Your task to perform on an android device: delete the emails in spam in the gmail app Image 0: 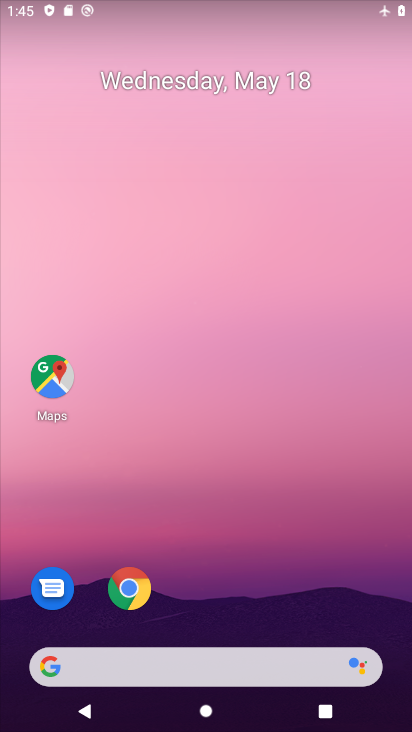
Step 0: drag from (332, 4) to (309, 543)
Your task to perform on an android device: delete the emails in spam in the gmail app Image 1: 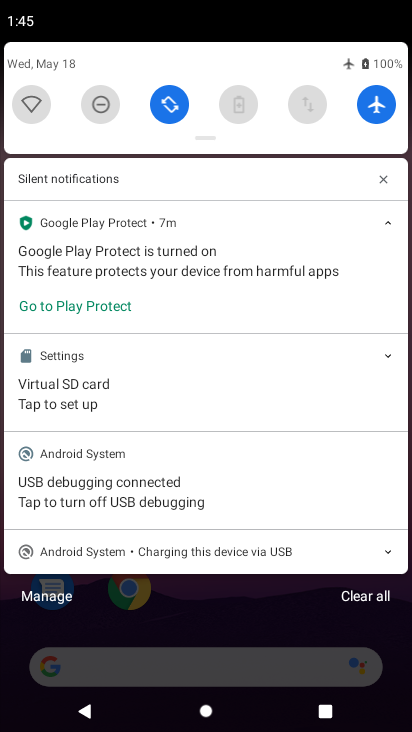
Step 1: click (371, 109)
Your task to perform on an android device: delete the emails in spam in the gmail app Image 2: 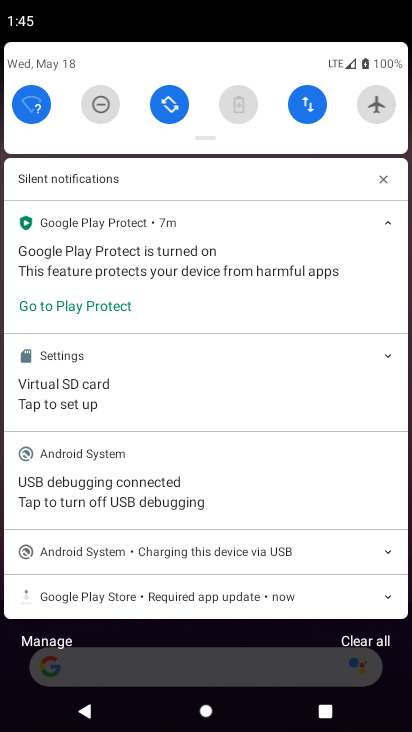
Step 2: press home button
Your task to perform on an android device: delete the emails in spam in the gmail app Image 3: 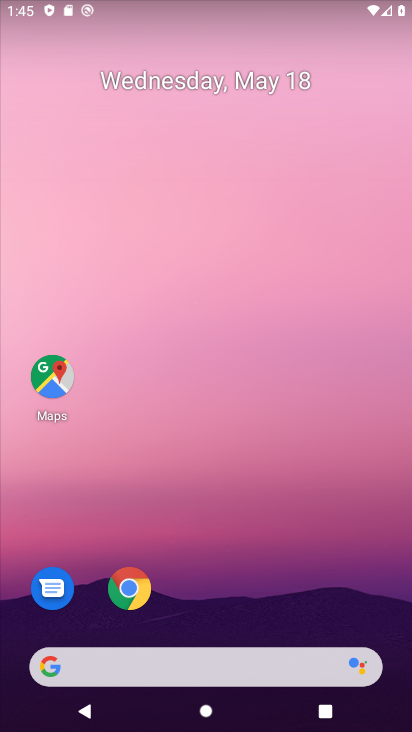
Step 3: drag from (67, 478) to (226, 163)
Your task to perform on an android device: delete the emails in spam in the gmail app Image 4: 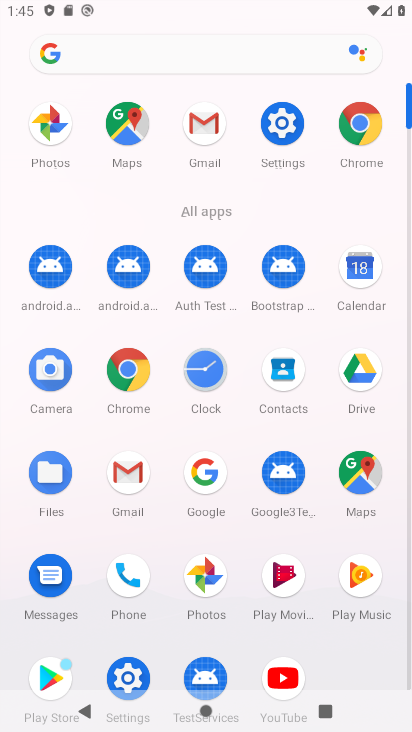
Step 4: click (127, 471)
Your task to perform on an android device: delete the emails in spam in the gmail app Image 5: 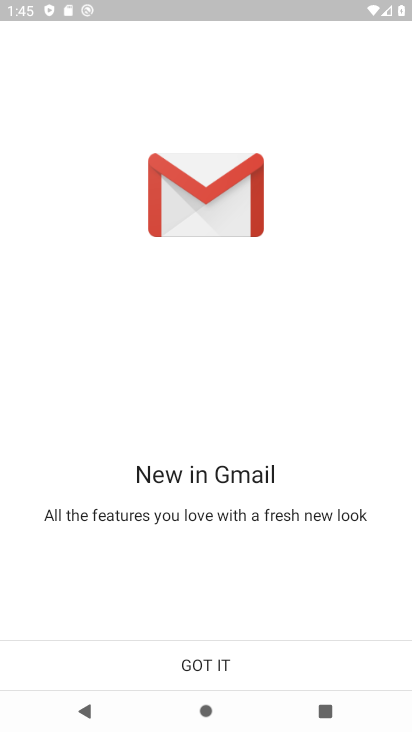
Step 5: click (174, 663)
Your task to perform on an android device: delete the emails in spam in the gmail app Image 6: 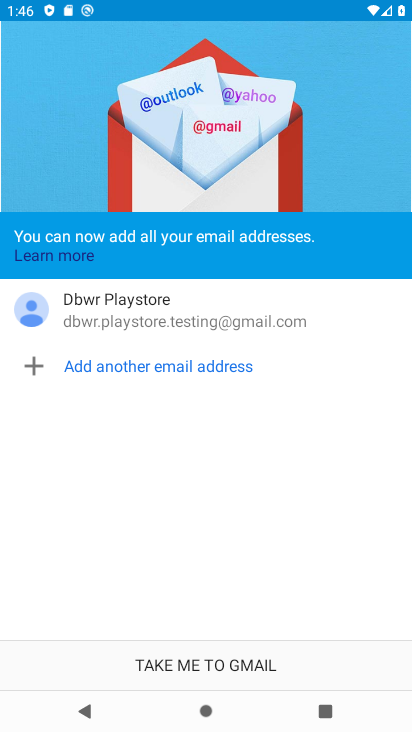
Step 6: click (154, 673)
Your task to perform on an android device: delete the emails in spam in the gmail app Image 7: 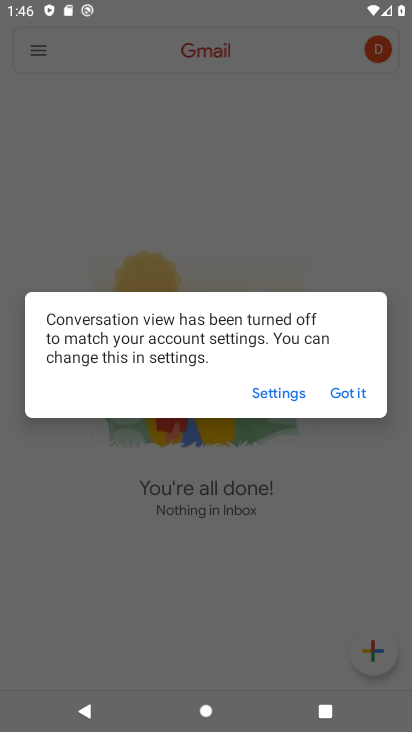
Step 7: click (346, 393)
Your task to perform on an android device: delete the emails in spam in the gmail app Image 8: 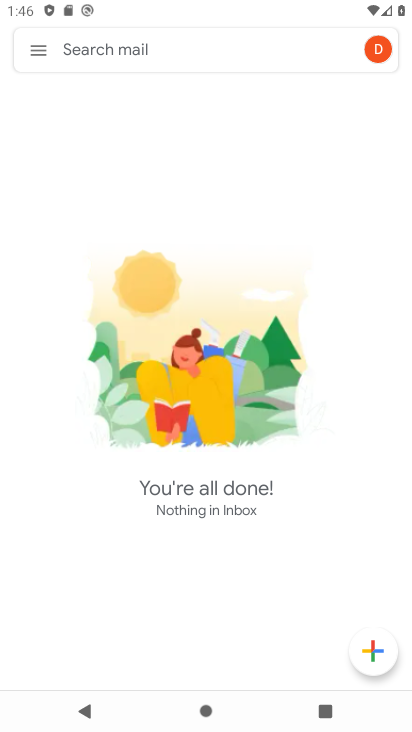
Step 8: click (41, 51)
Your task to perform on an android device: delete the emails in spam in the gmail app Image 9: 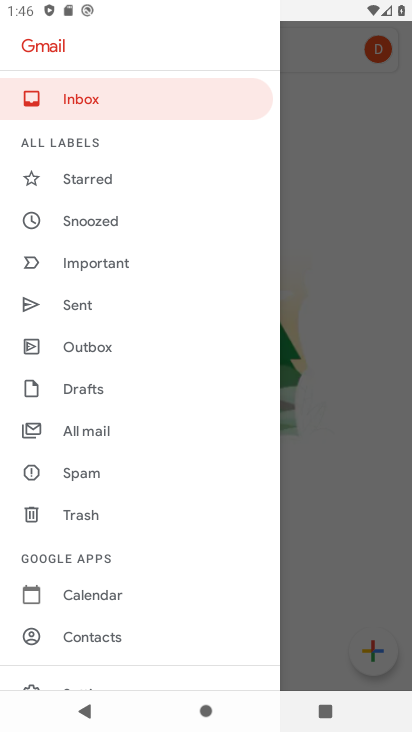
Step 9: click (83, 475)
Your task to perform on an android device: delete the emails in spam in the gmail app Image 10: 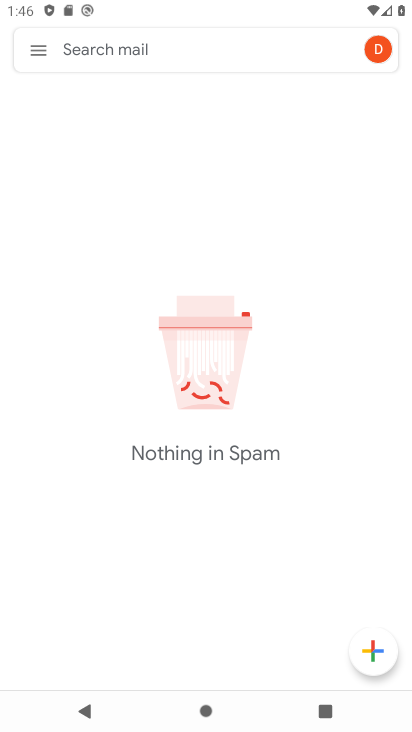
Step 10: task complete